Your task to perform on an android device: see tabs open on other devices in the chrome app Image 0: 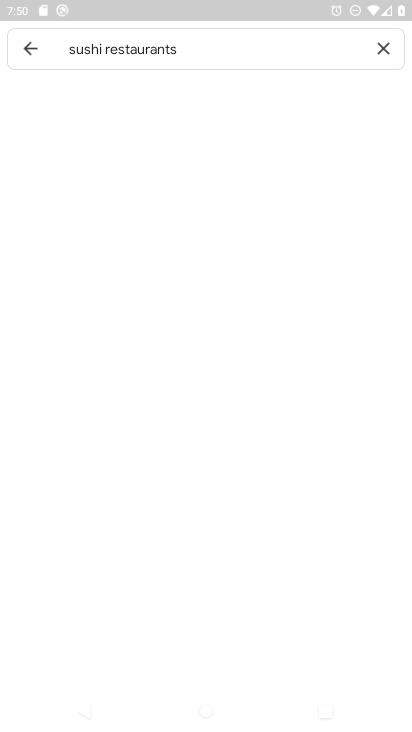
Step 0: press home button
Your task to perform on an android device: see tabs open on other devices in the chrome app Image 1: 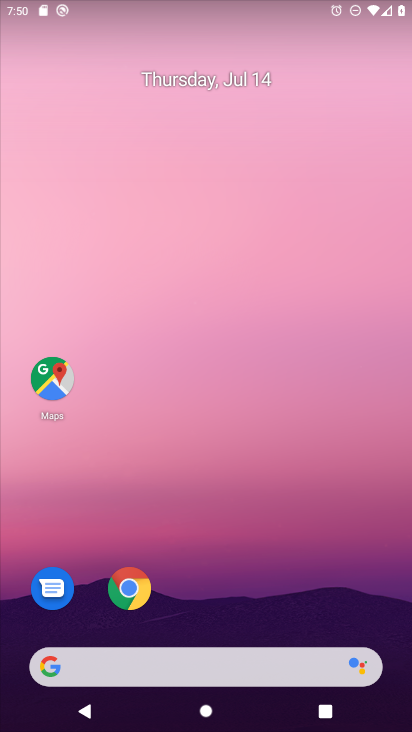
Step 1: click (122, 588)
Your task to perform on an android device: see tabs open on other devices in the chrome app Image 2: 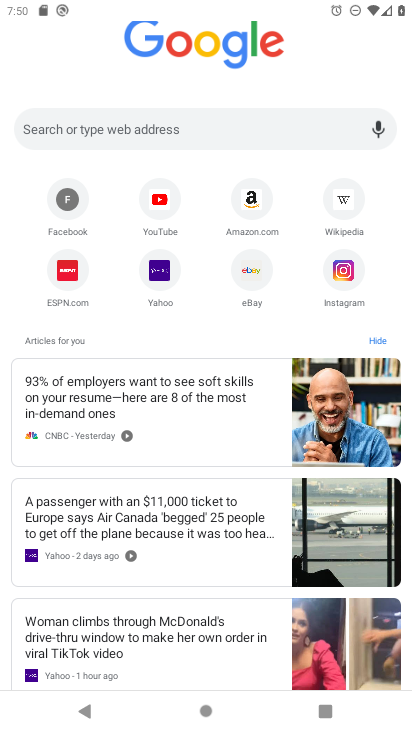
Step 2: click (388, 23)
Your task to perform on an android device: see tabs open on other devices in the chrome app Image 3: 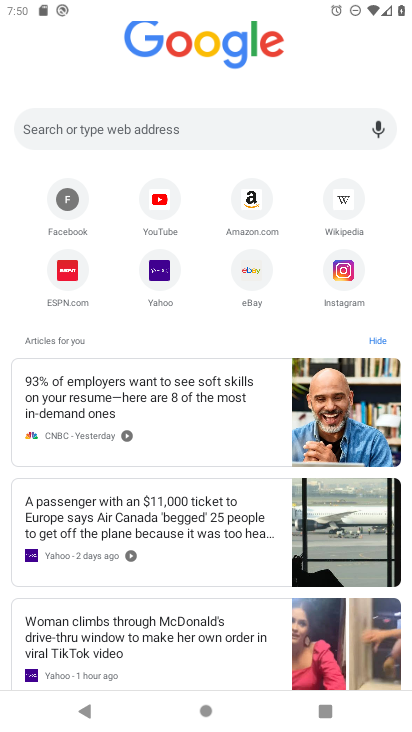
Step 3: click (352, 71)
Your task to perform on an android device: see tabs open on other devices in the chrome app Image 4: 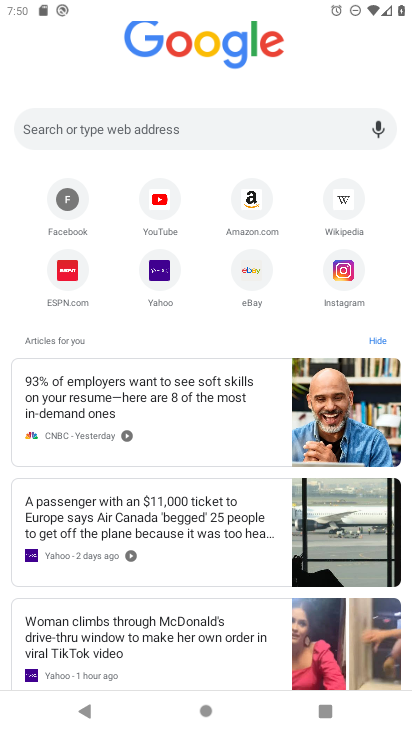
Step 4: task complete